Your task to perform on an android device: Turn off the flashlight Image 0: 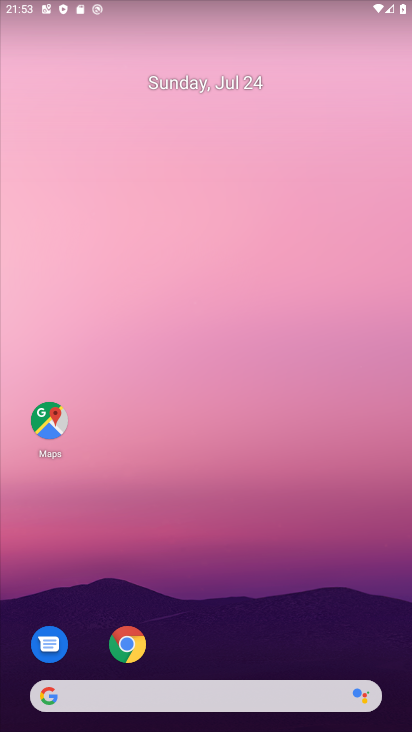
Step 0: drag from (220, 24) to (222, 479)
Your task to perform on an android device: Turn off the flashlight Image 1: 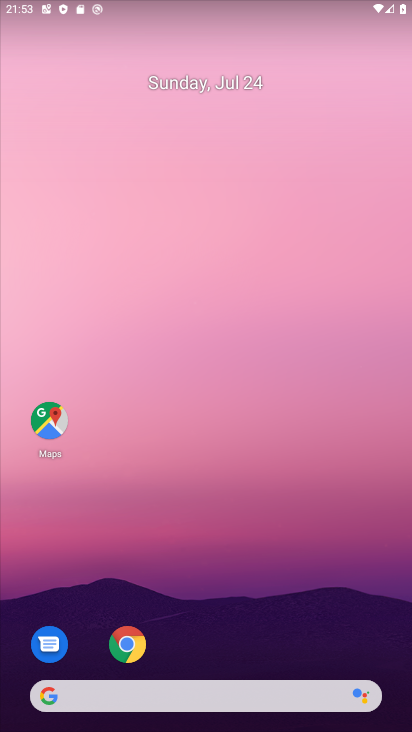
Step 1: drag from (238, 31) to (253, 502)
Your task to perform on an android device: Turn off the flashlight Image 2: 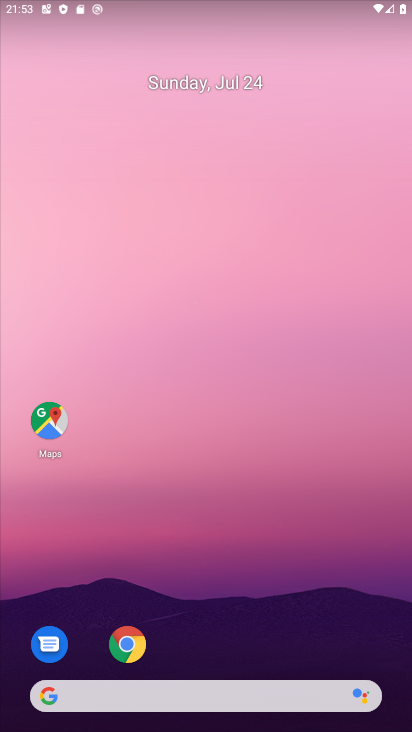
Step 2: drag from (218, 26) to (269, 611)
Your task to perform on an android device: Turn off the flashlight Image 3: 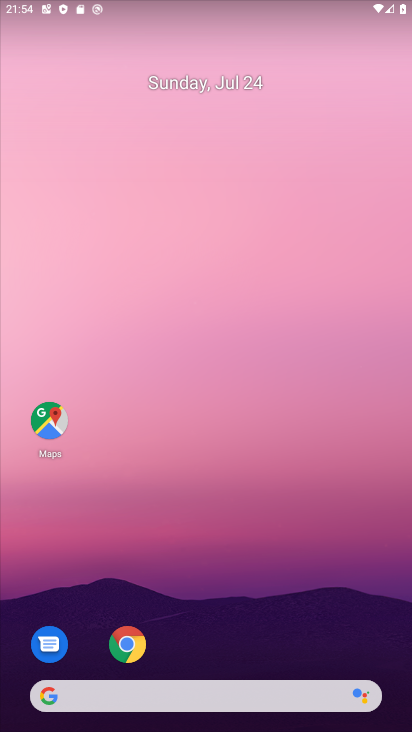
Step 3: drag from (221, 6) to (213, 546)
Your task to perform on an android device: Turn off the flashlight Image 4: 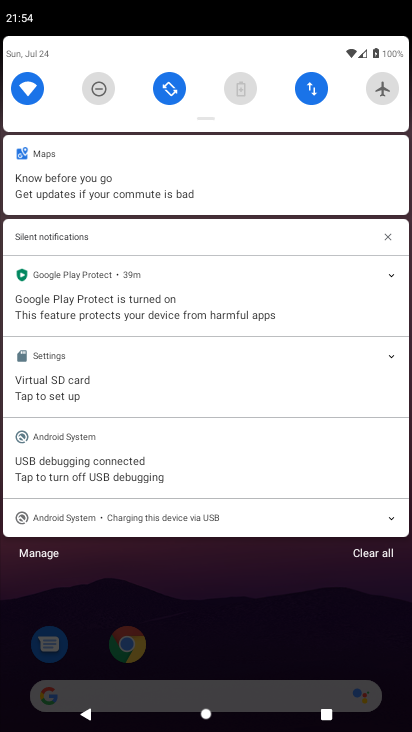
Step 4: drag from (195, 124) to (188, 417)
Your task to perform on an android device: Turn off the flashlight Image 5: 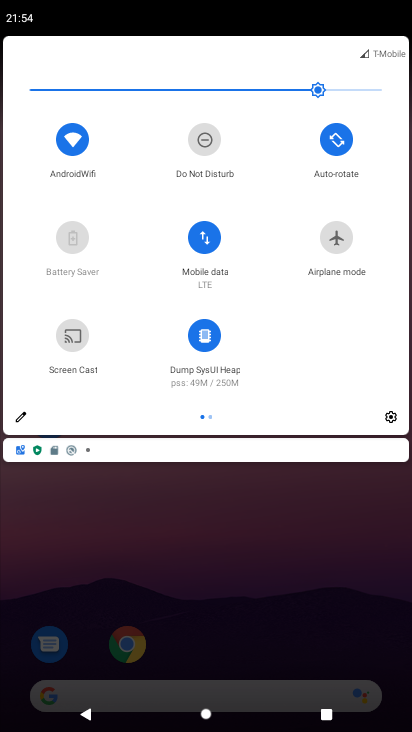
Step 5: click (16, 419)
Your task to perform on an android device: Turn off the flashlight Image 6: 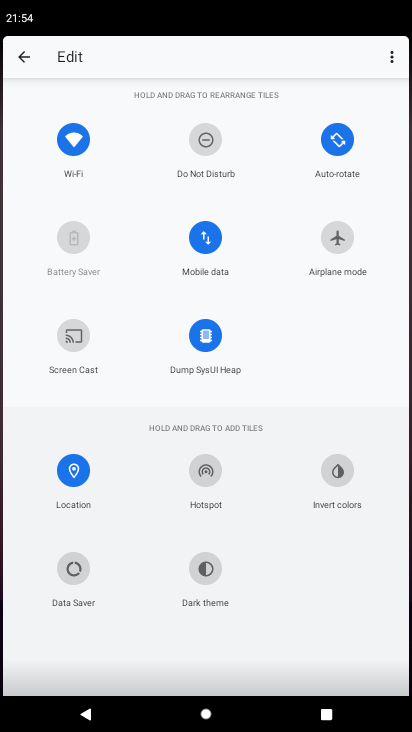
Step 6: task complete